Your task to perform on an android device: Go to Android settings Image 0: 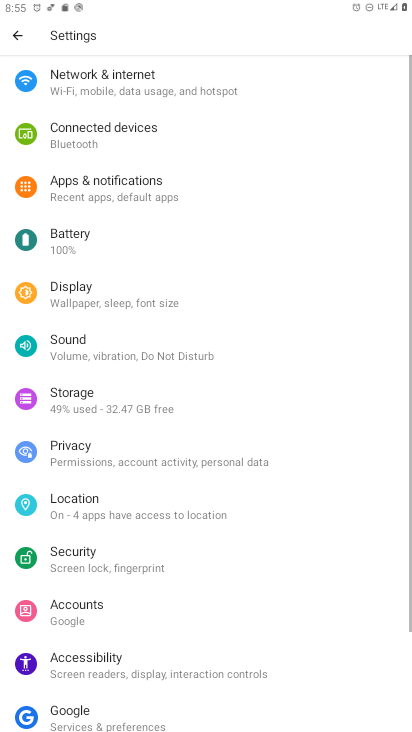
Step 0: press home button
Your task to perform on an android device: Go to Android settings Image 1: 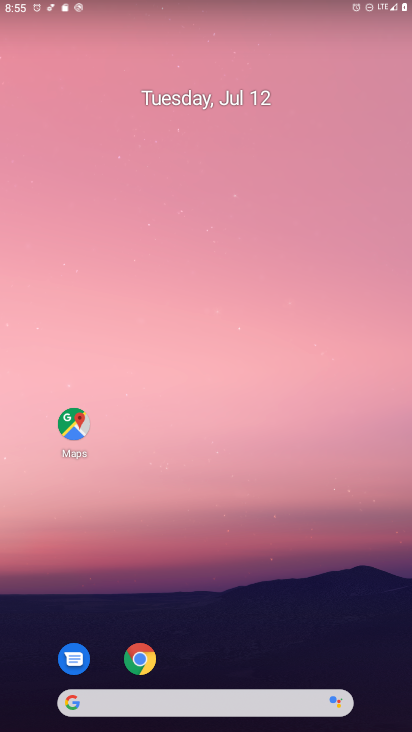
Step 1: drag from (209, 694) to (220, 131)
Your task to perform on an android device: Go to Android settings Image 2: 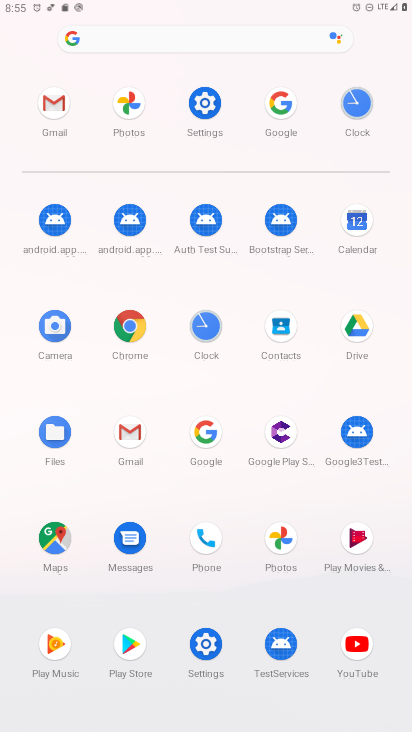
Step 2: click (205, 102)
Your task to perform on an android device: Go to Android settings Image 3: 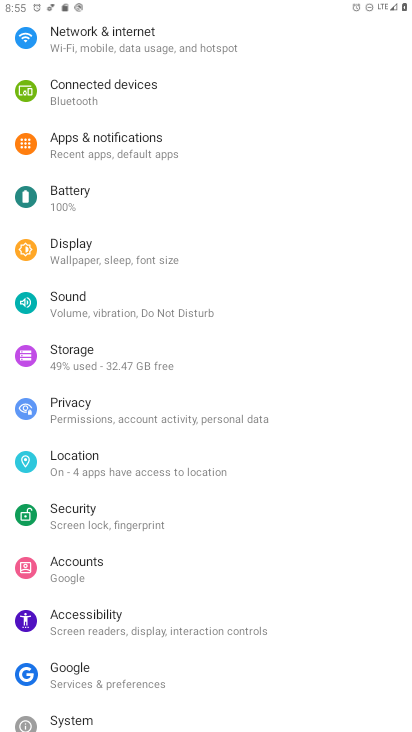
Step 3: task complete